Your task to perform on an android device: View the shopping cart on walmart.com. Image 0: 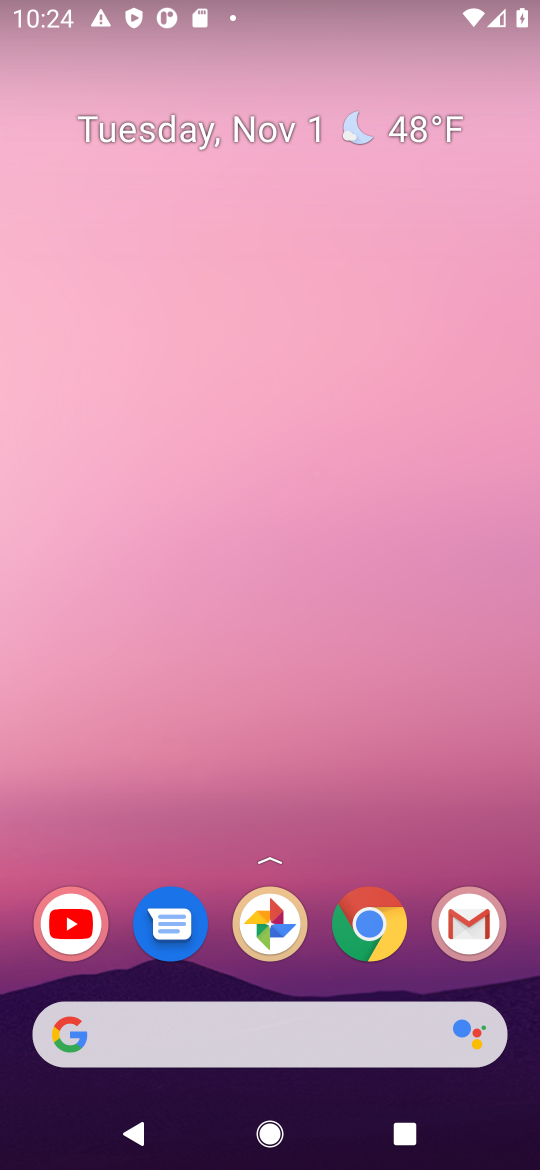
Step 0: click (371, 932)
Your task to perform on an android device: View the shopping cart on walmart.com. Image 1: 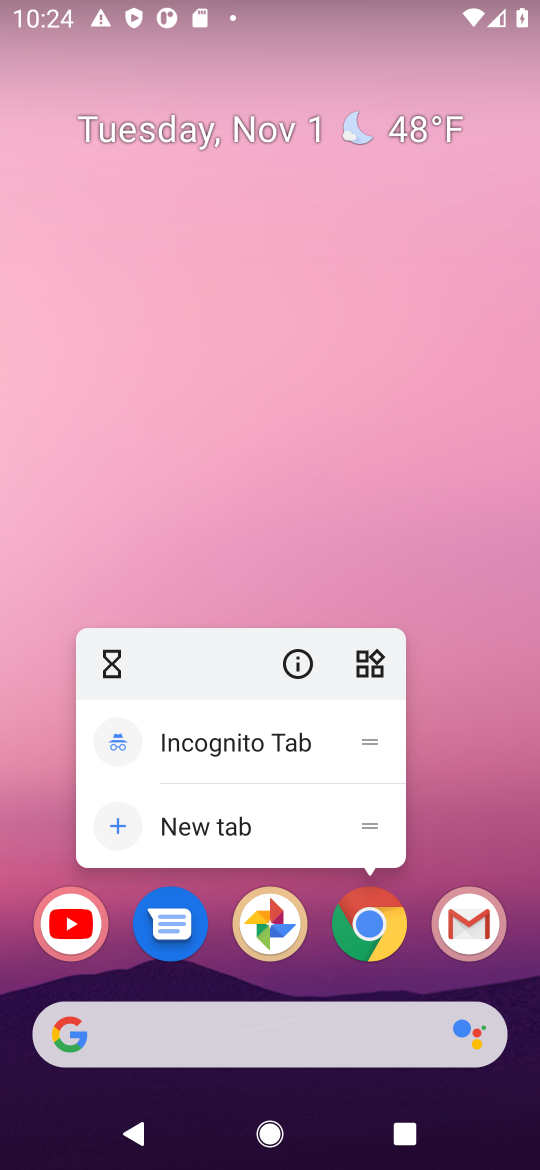
Step 1: click (371, 934)
Your task to perform on an android device: View the shopping cart on walmart.com. Image 2: 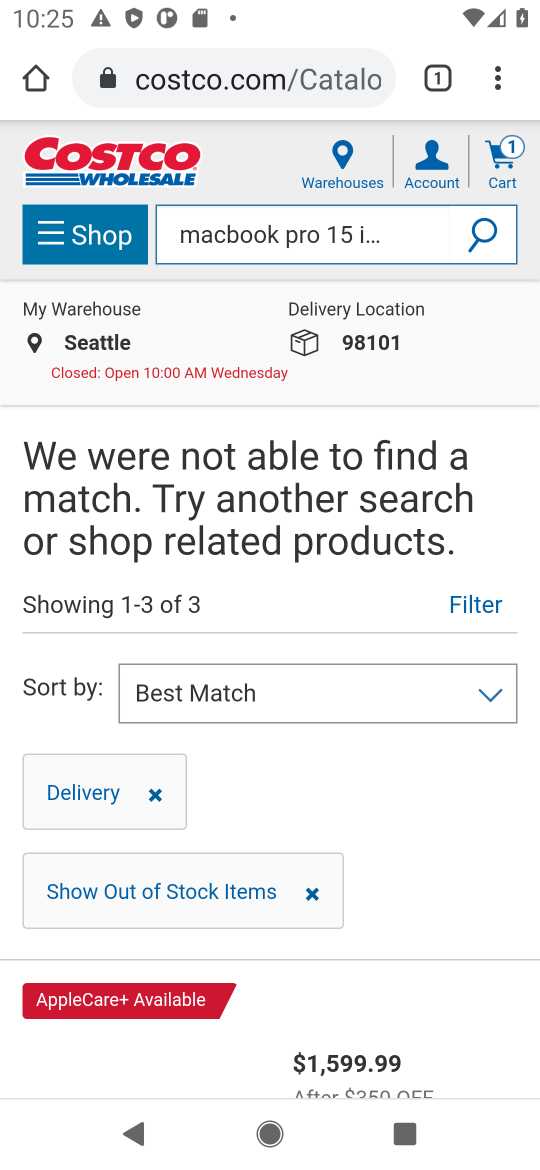
Step 2: click (234, 81)
Your task to perform on an android device: View the shopping cart on walmart.com. Image 3: 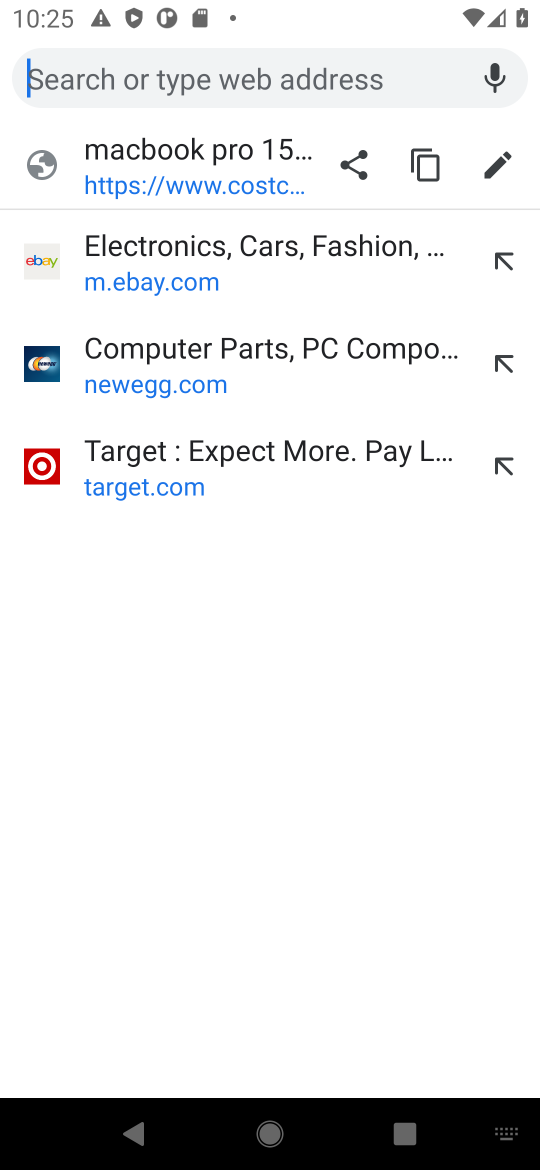
Step 3: type "walmart"
Your task to perform on an android device: View the shopping cart on walmart.com. Image 4: 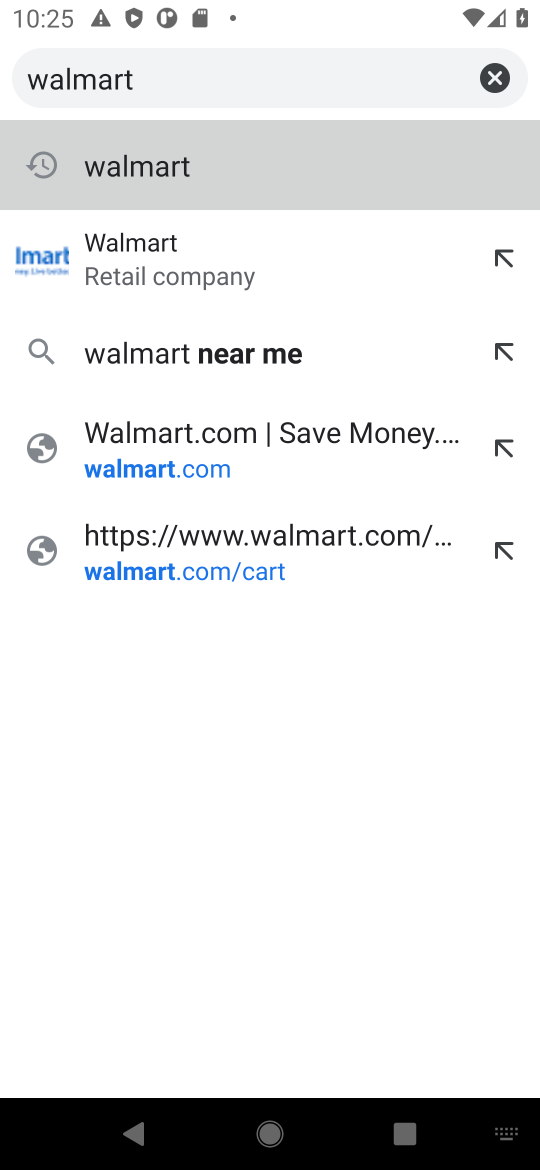
Step 4: click (209, 176)
Your task to perform on an android device: View the shopping cart on walmart.com. Image 5: 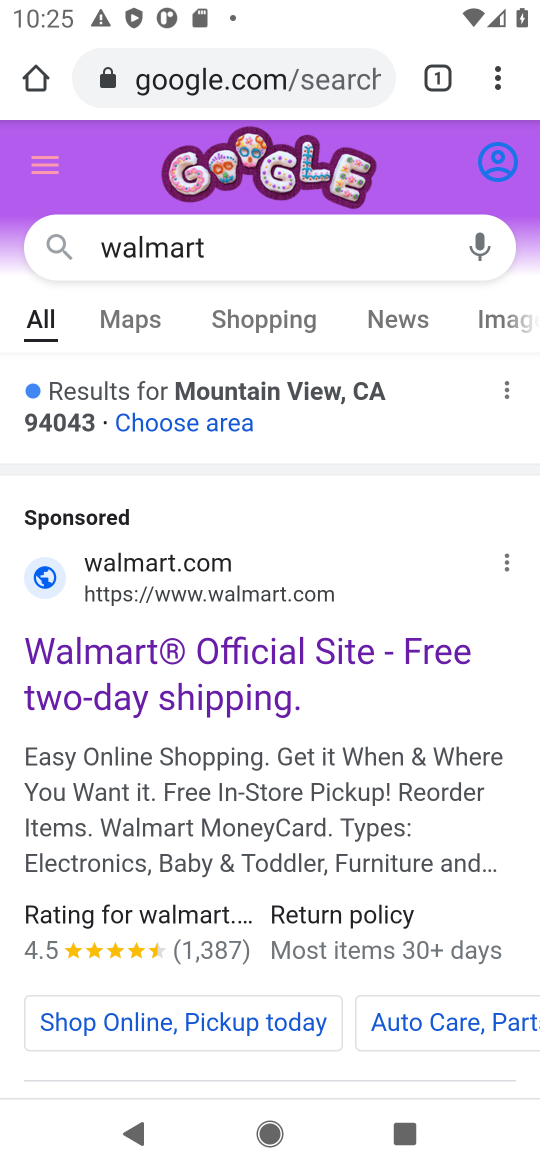
Step 5: drag from (439, 725) to (384, 433)
Your task to perform on an android device: View the shopping cart on walmart.com. Image 6: 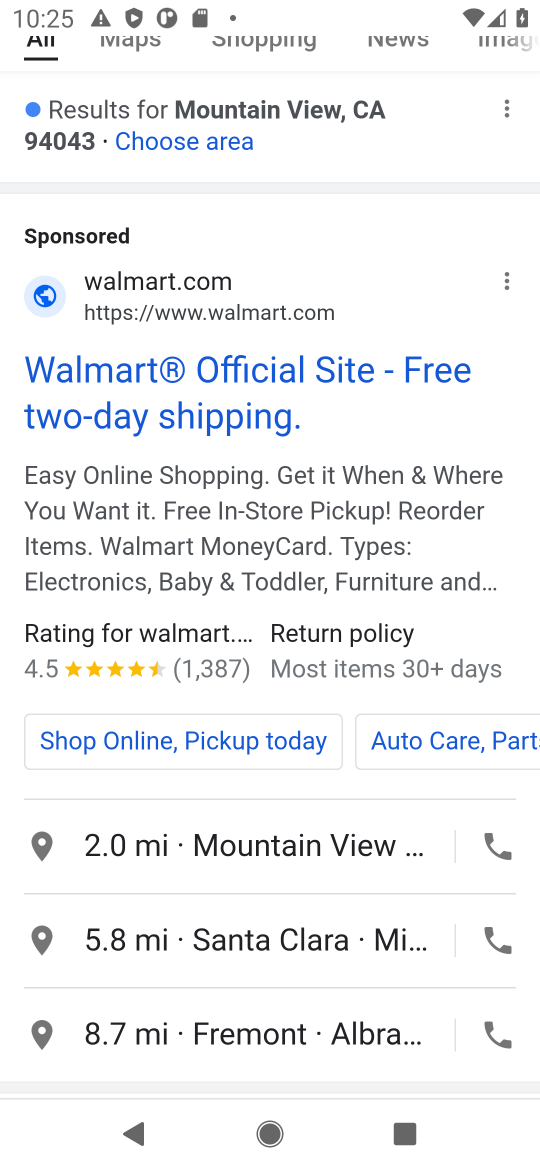
Step 6: drag from (408, 698) to (347, 258)
Your task to perform on an android device: View the shopping cart on walmart.com. Image 7: 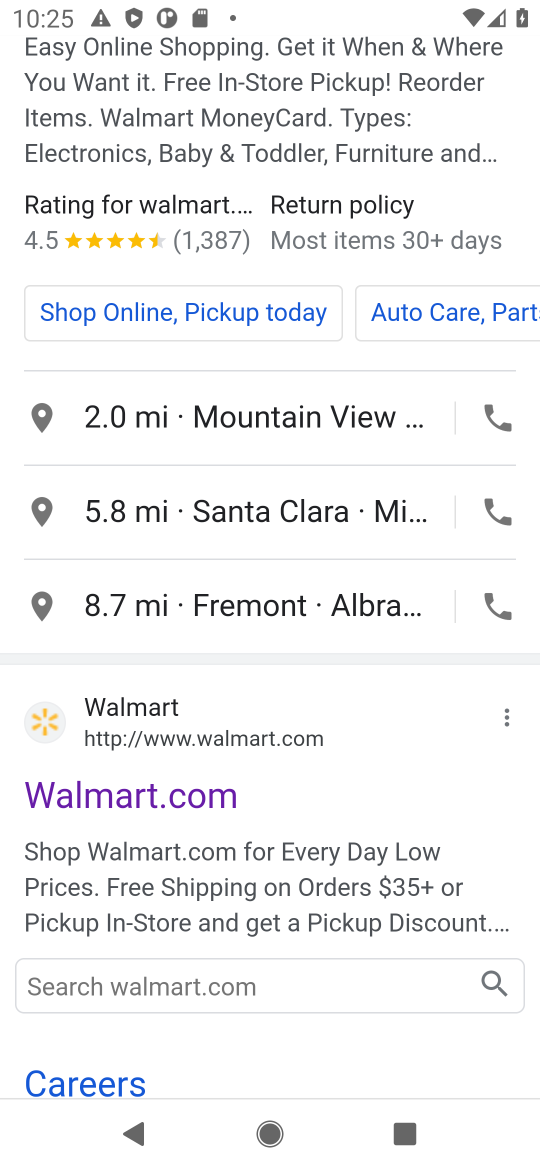
Step 7: click (151, 796)
Your task to perform on an android device: View the shopping cart on walmart.com. Image 8: 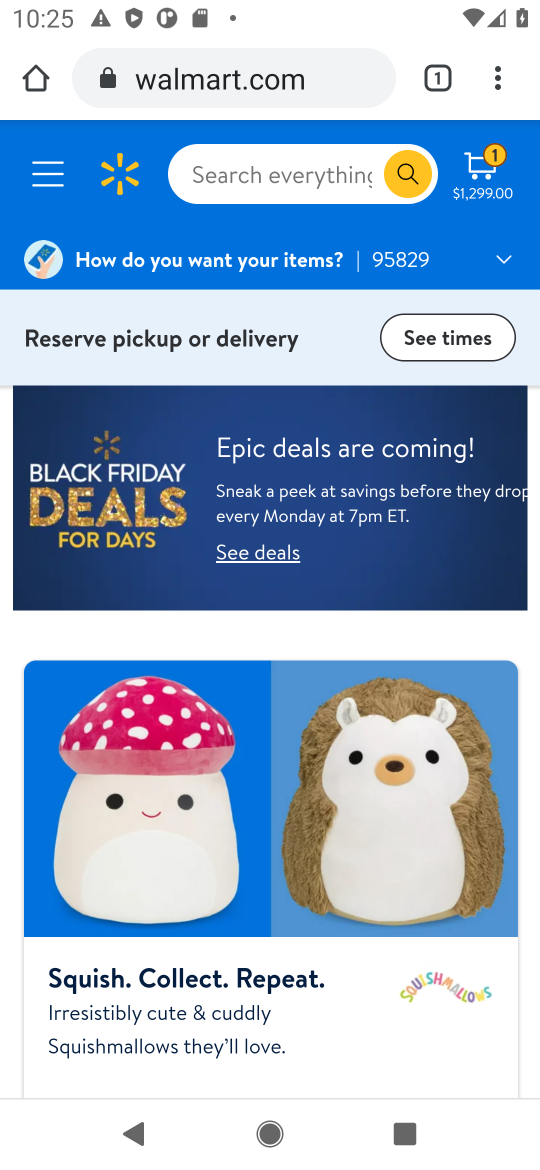
Step 8: click (492, 167)
Your task to perform on an android device: View the shopping cart on walmart.com. Image 9: 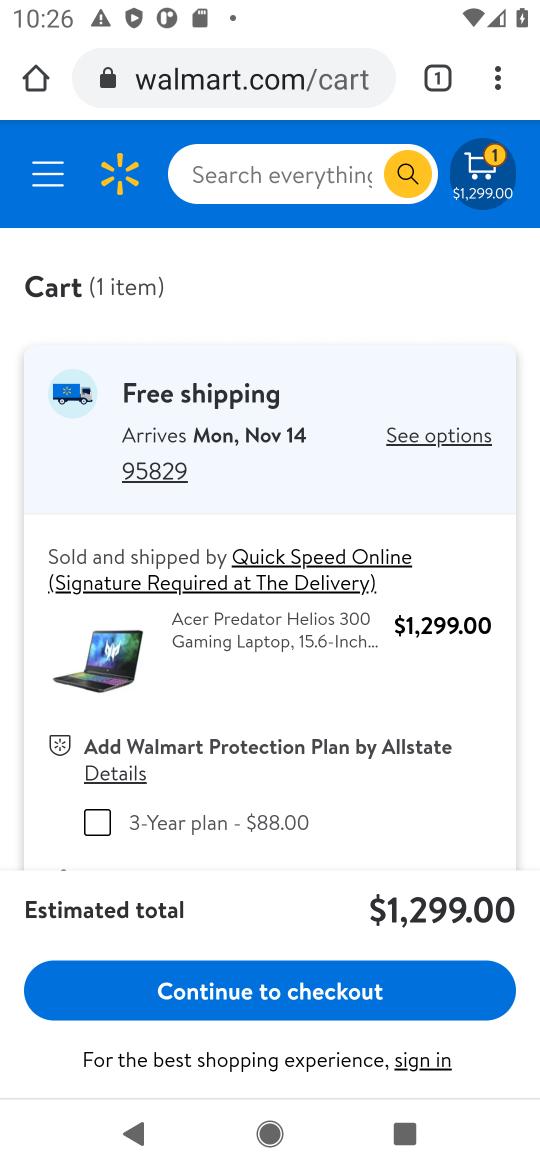
Step 9: task complete